Your task to perform on an android device: Go to CNN.com Image 0: 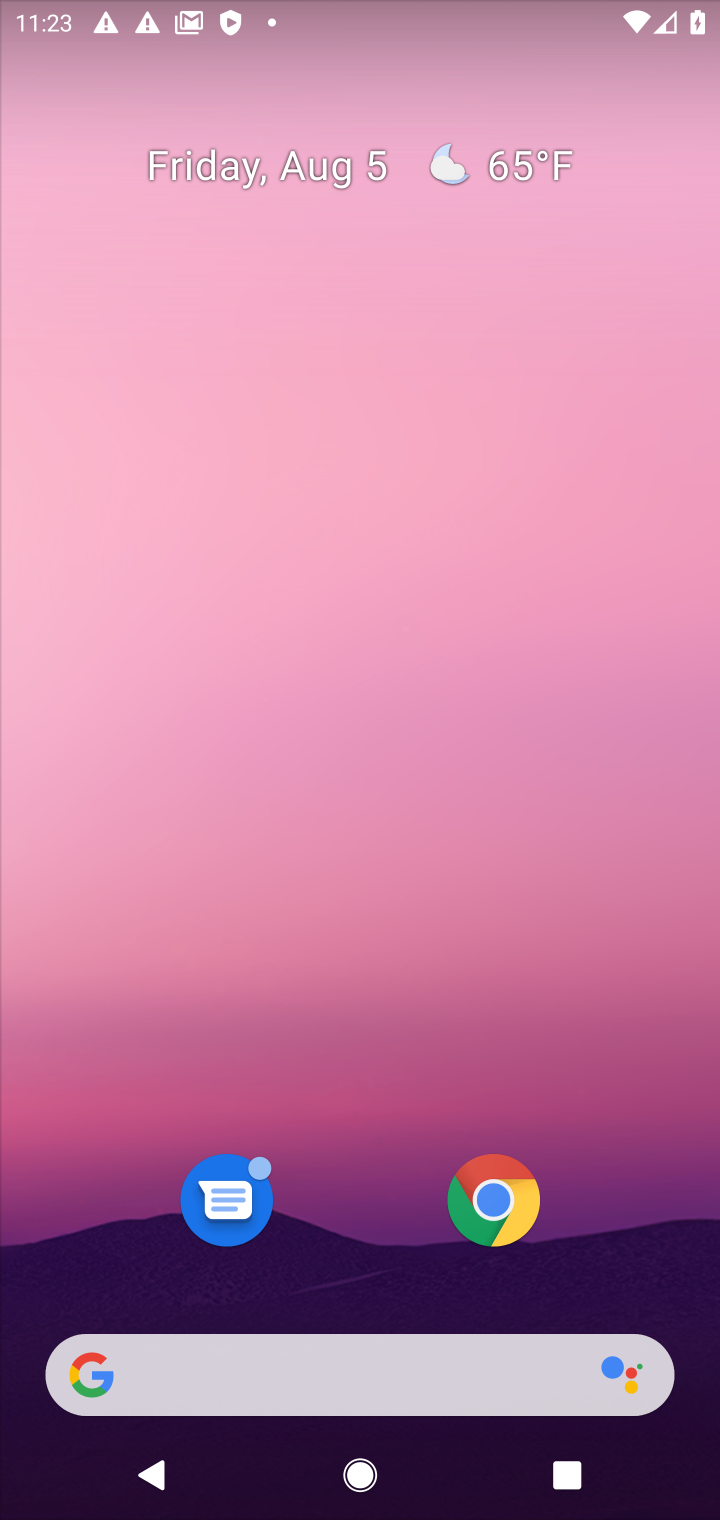
Step 0: click (495, 1203)
Your task to perform on an android device: Go to CNN.com Image 1: 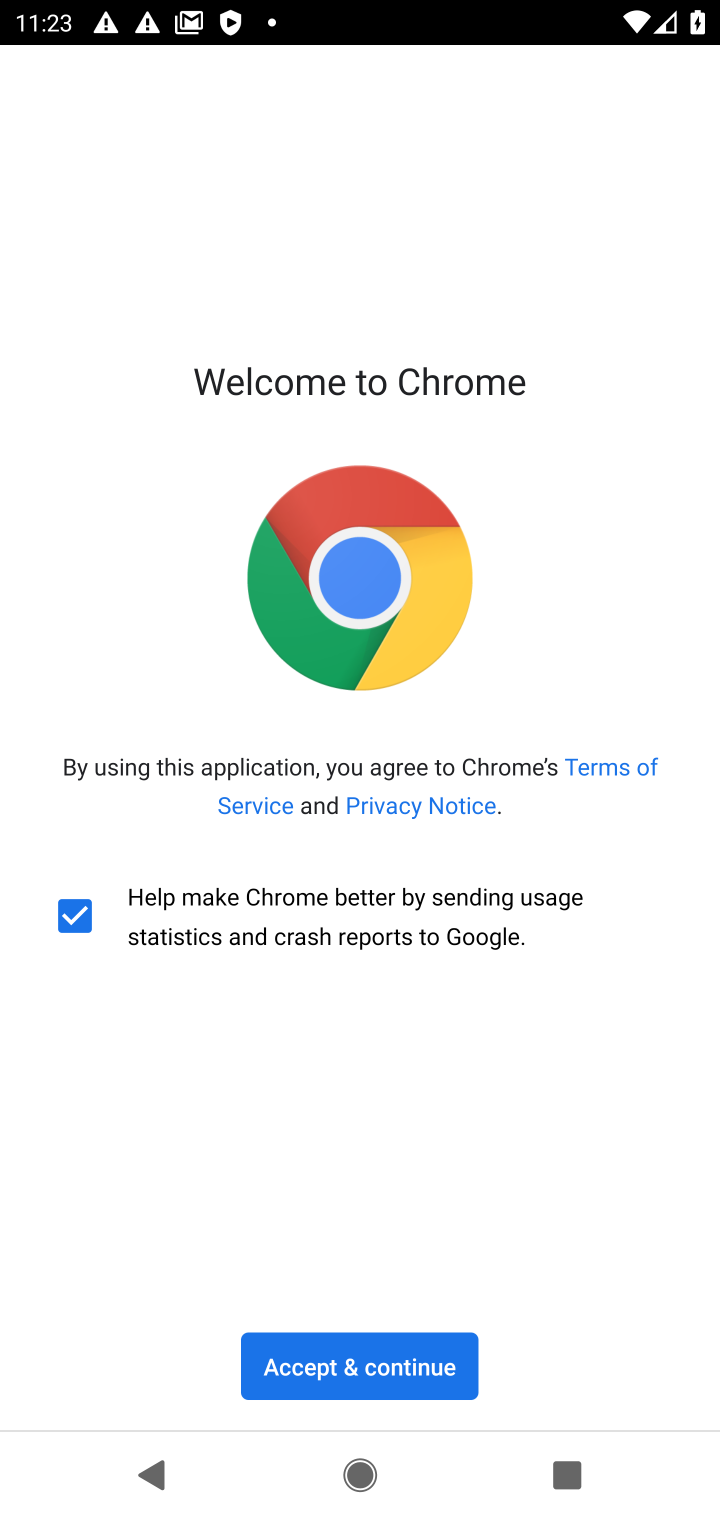
Step 1: click (375, 1364)
Your task to perform on an android device: Go to CNN.com Image 2: 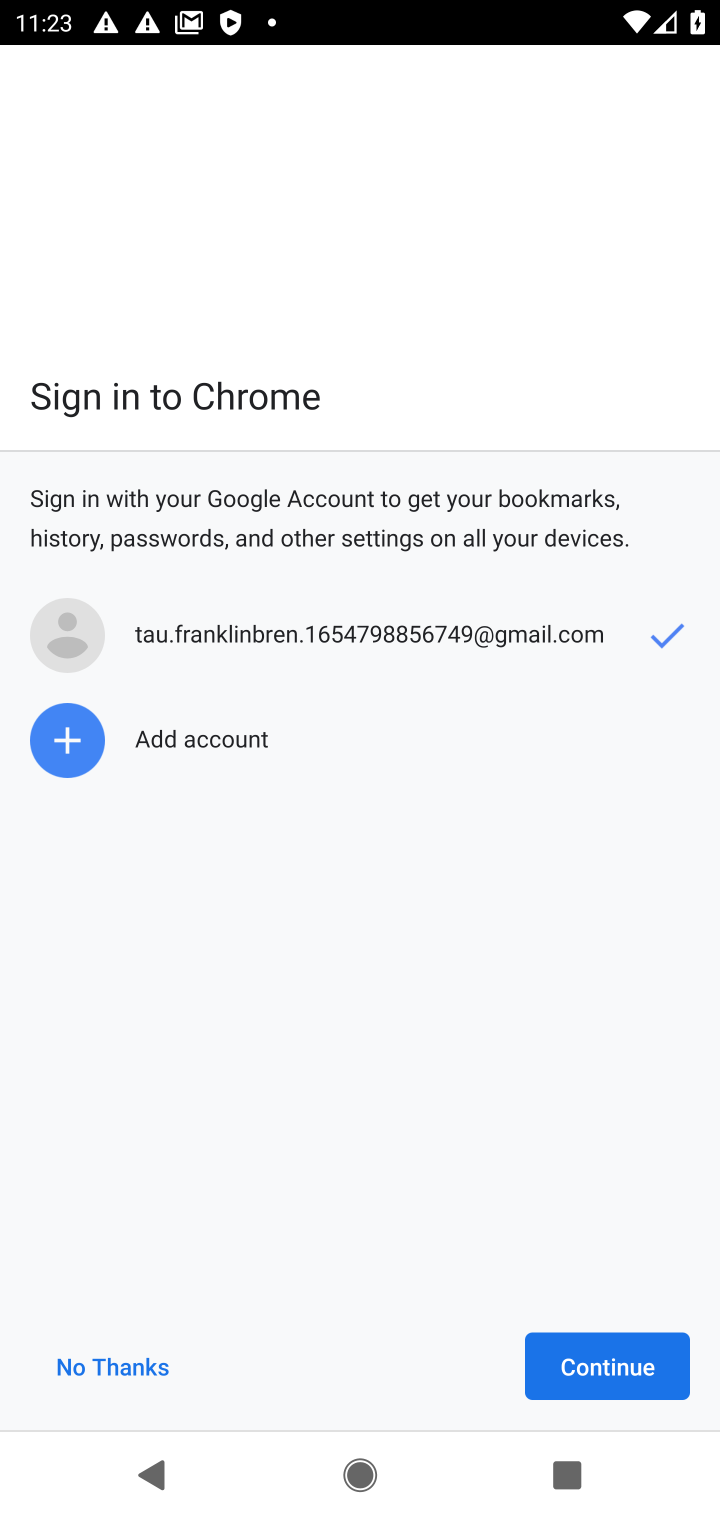
Step 2: click (610, 1368)
Your task to perform on an android device: Go to CNN.com Image 3: 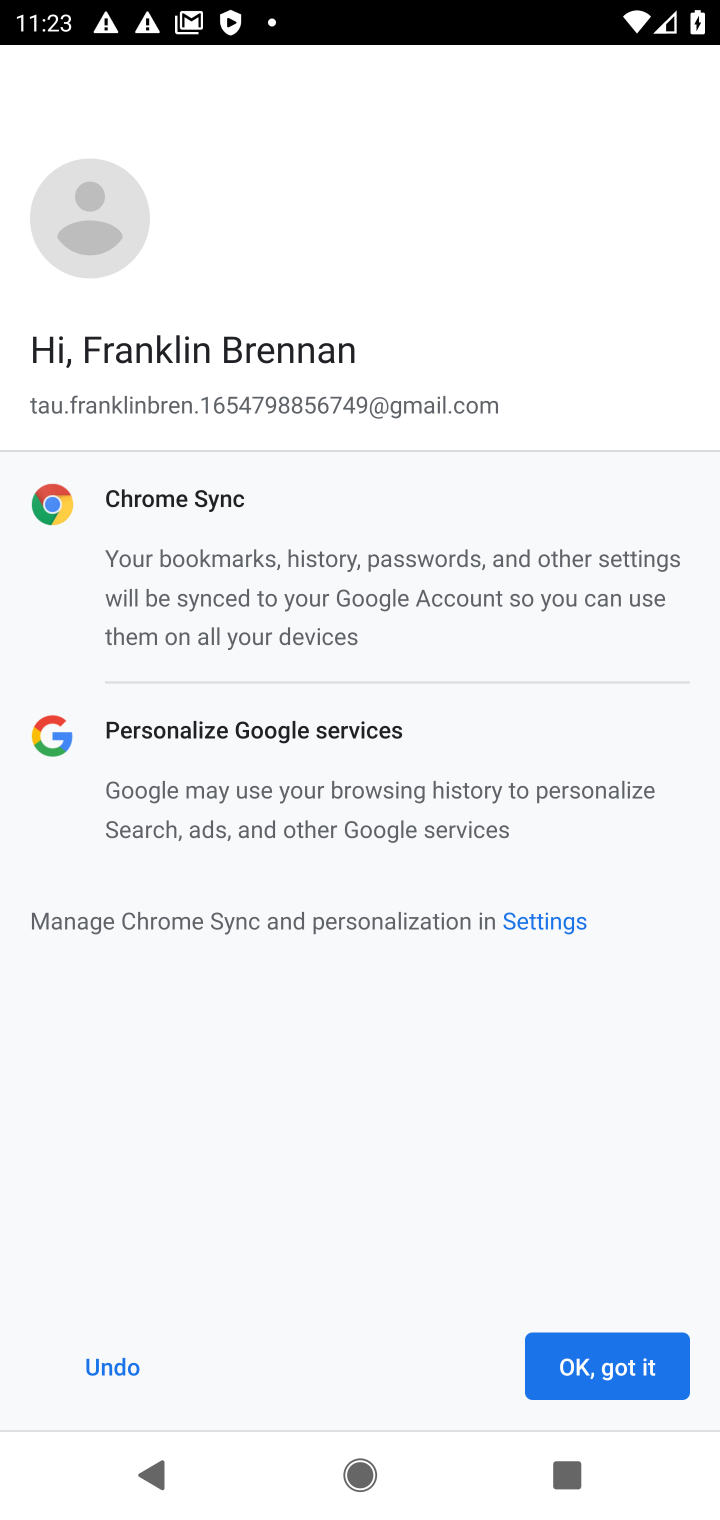
Step 3: click (610, 1368)
Your task to perform on an android device: Go to CNN.com Image 4: 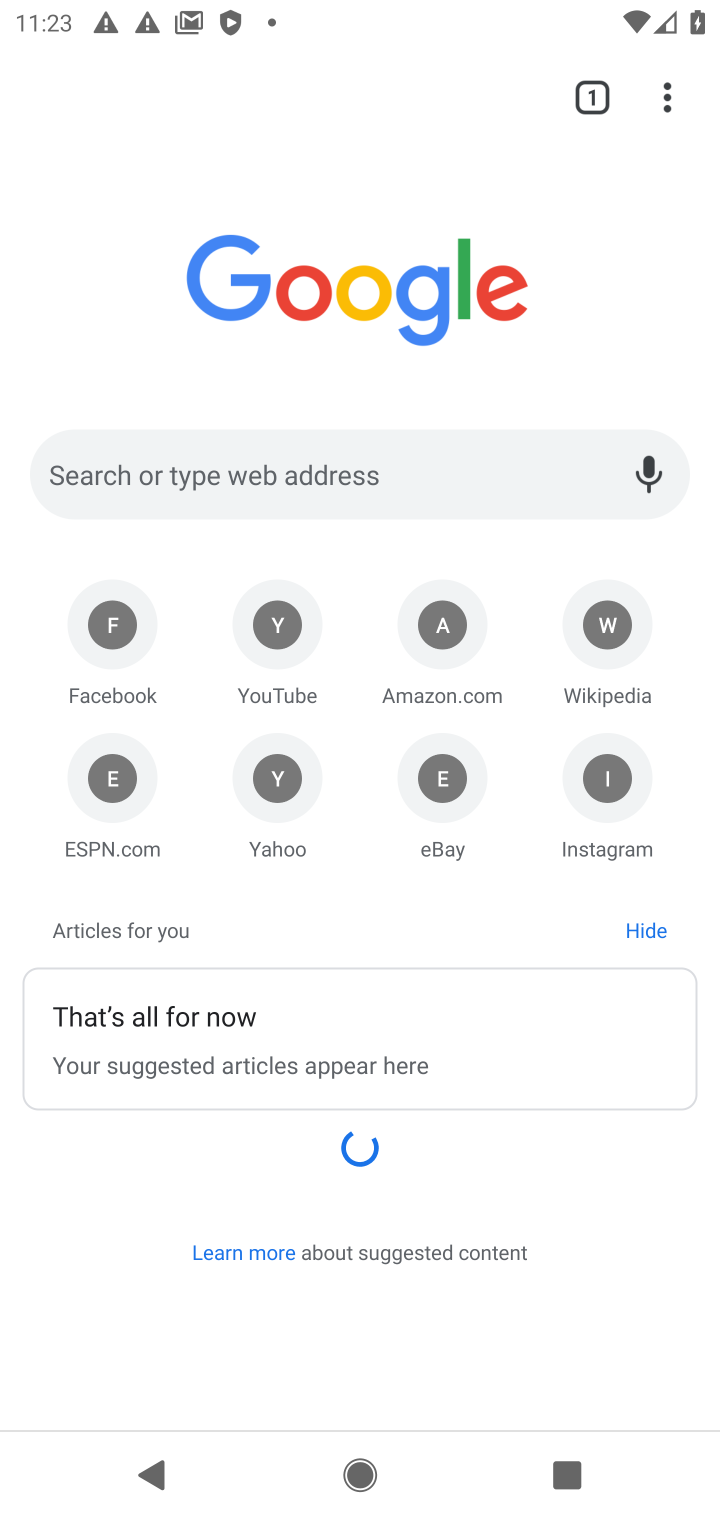
Step 4: click (274, 477)
Your task to perform on an android device: Go to CNN.com Image 5: 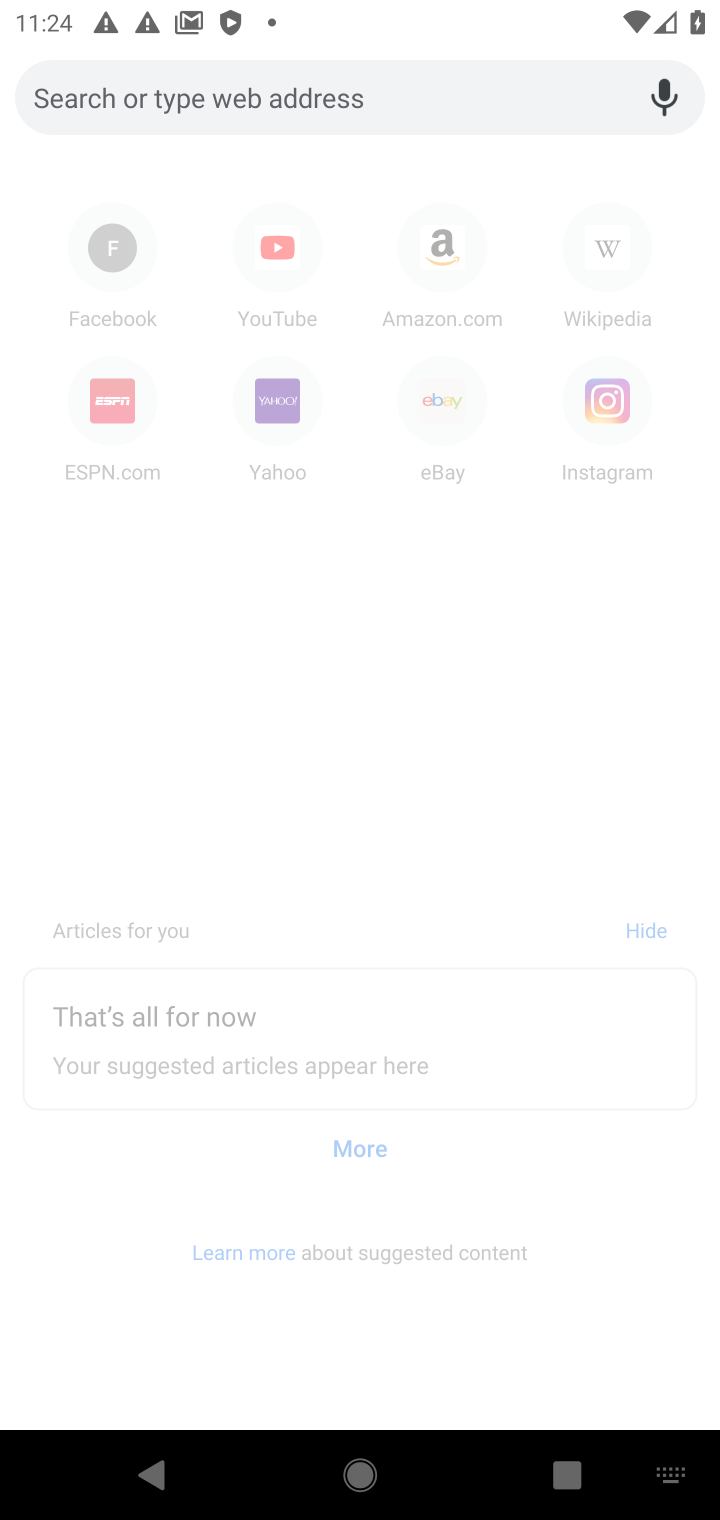
Step 5: type "CNN.com"
Your task to perform on an android device: Go to CNN.com Image 6: 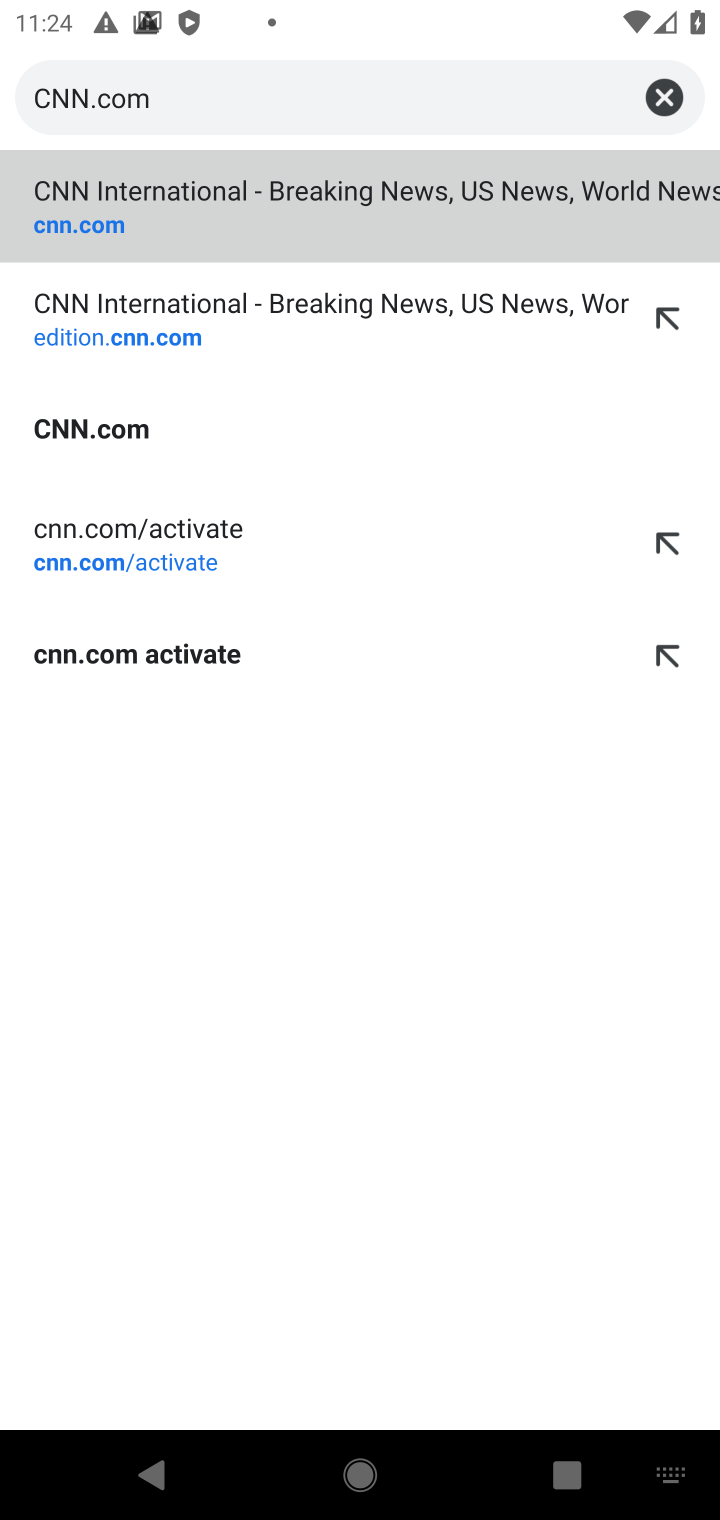
Step 6: click (171, 191)
Your task to perform on an android device: Go to CNN.com Image 7: 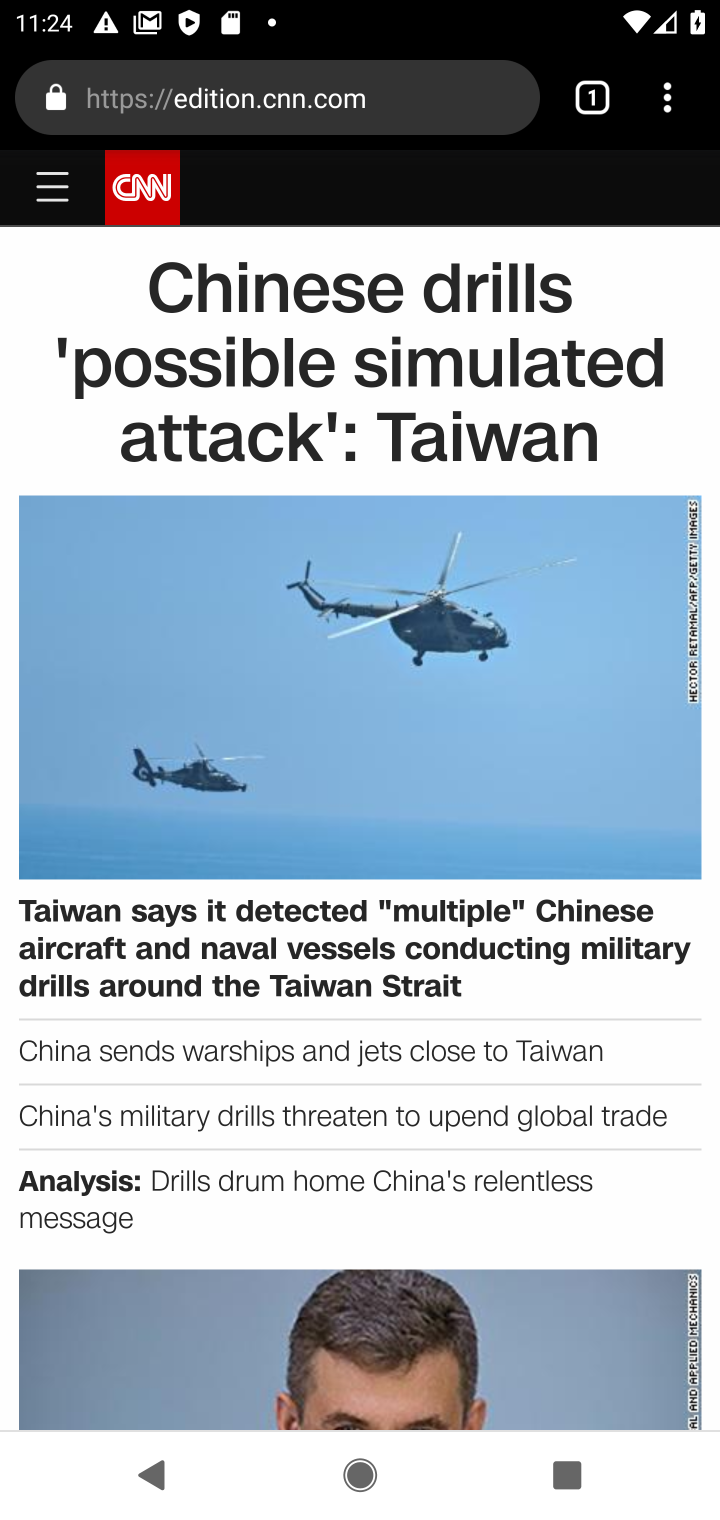
Step 7: drag from (510, 1238) to (457, 407)
Your task to perform on an android device: Go to CNN.com Image 8: 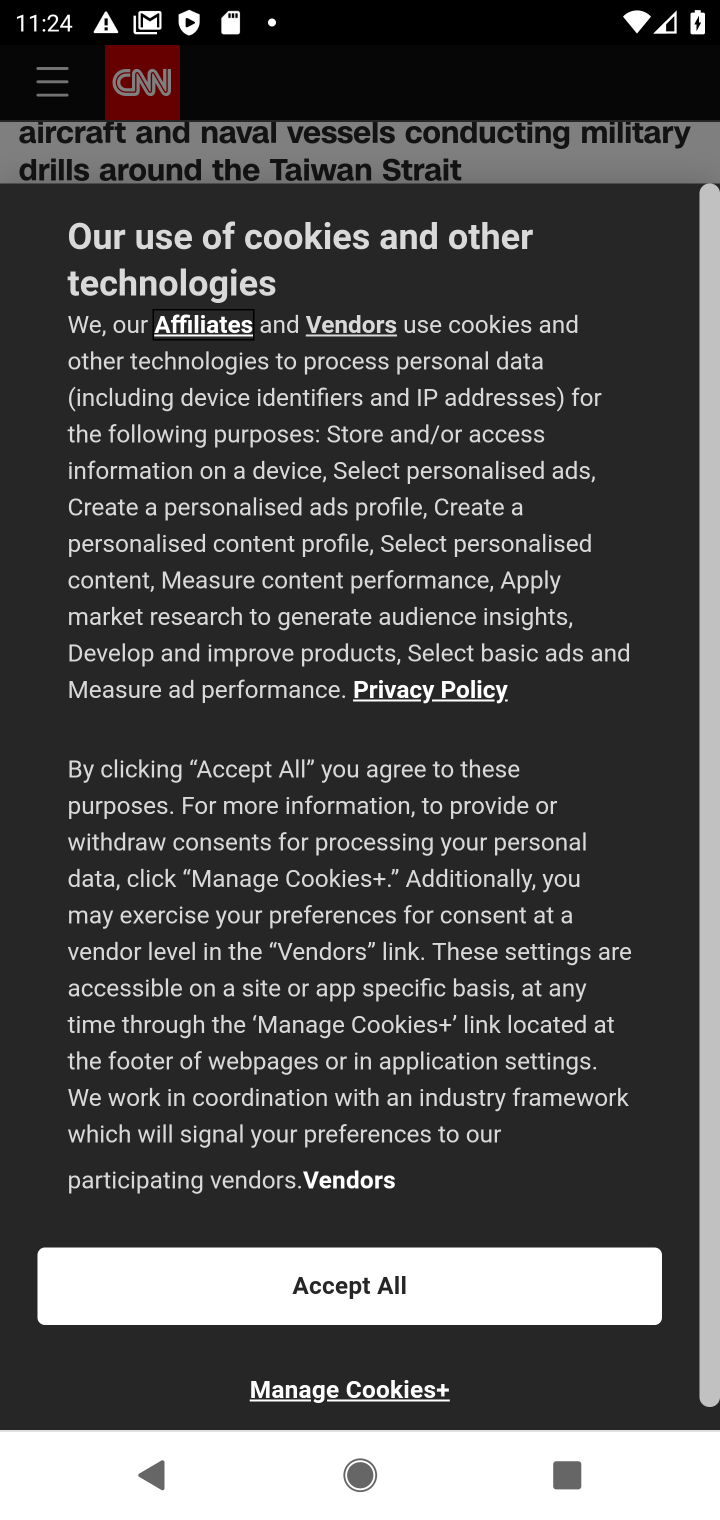
Step 8: click (341, 1280)
Your task to perform on an android device: Go to CNN.com Image 9: 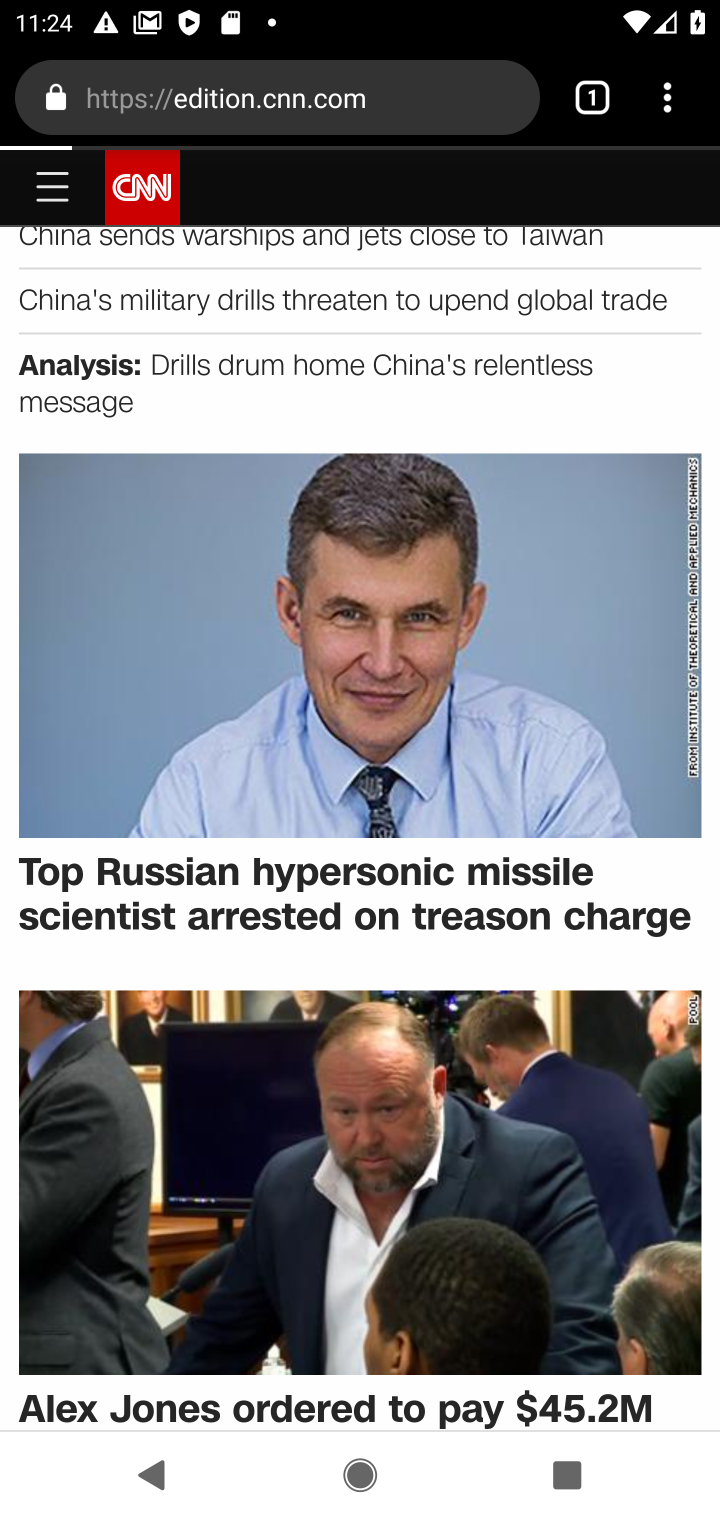
Step 9: task complete